Your task to perform on an android device: Search for vegetarian restaurants on Maps Image 0: 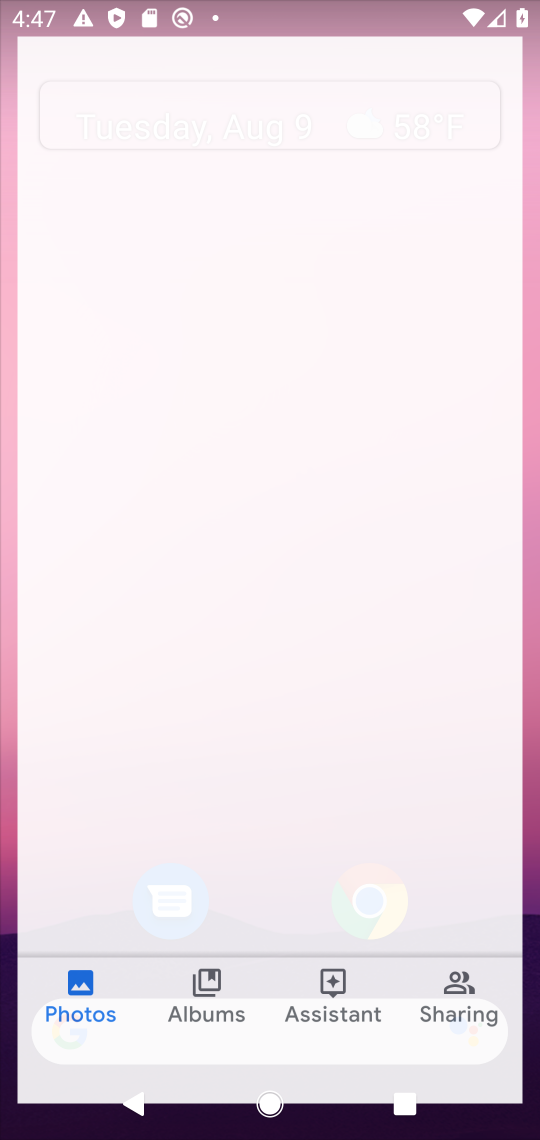
Step 0: press home button
Your task to perform on an android device: Search for vegetarian restaurants on Maps Image 1: 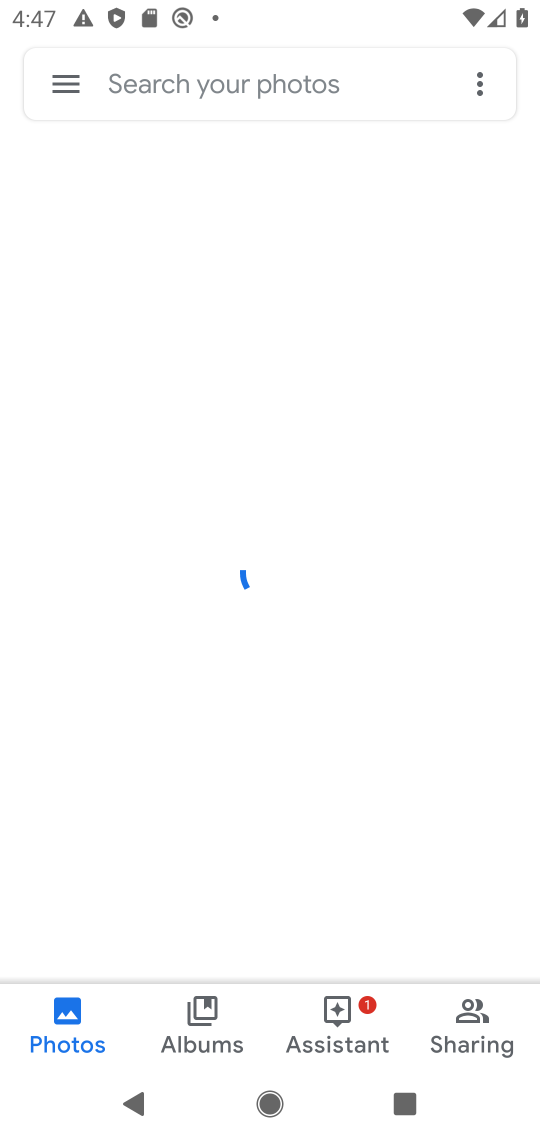
Step 1: press home button
Your task to perform on an android device: Search for vegetarian restaurants on Maps Image 2: 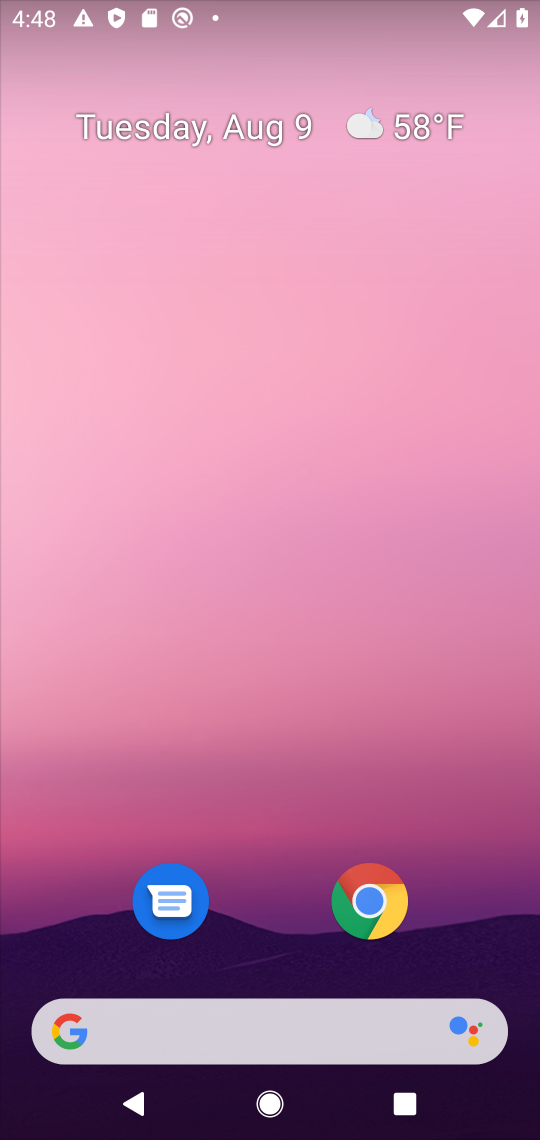
Step 2: drag from (267, 926) to (281, 374)
Your task to perform on an android device: Search for vegetarian restaurants on Maps Image 3: 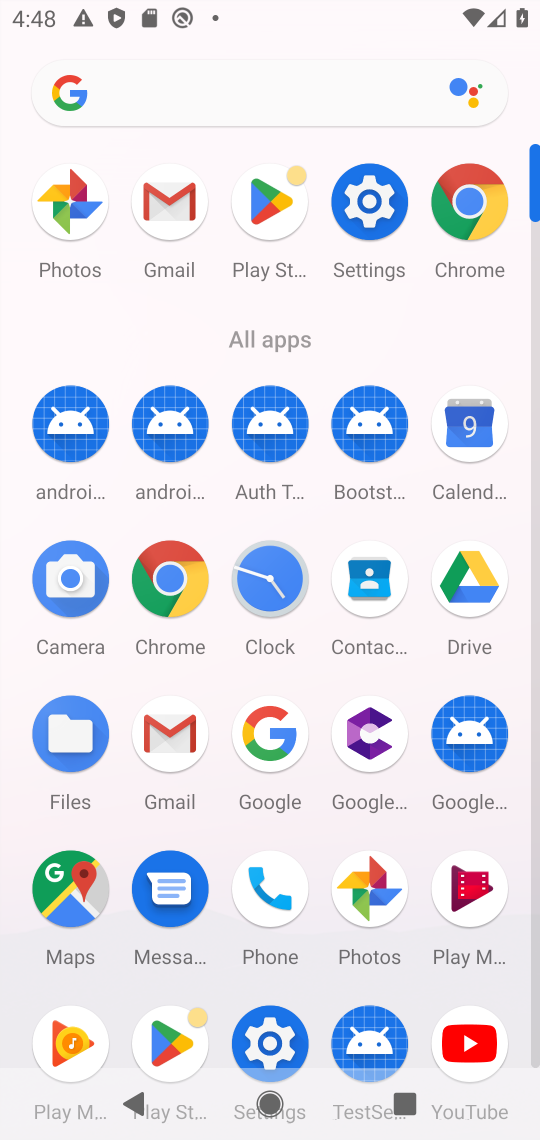
Step 3: click (51, 865)
Your task to perform on an android device: Search for vegetarian restaurants on Maps Image 4: 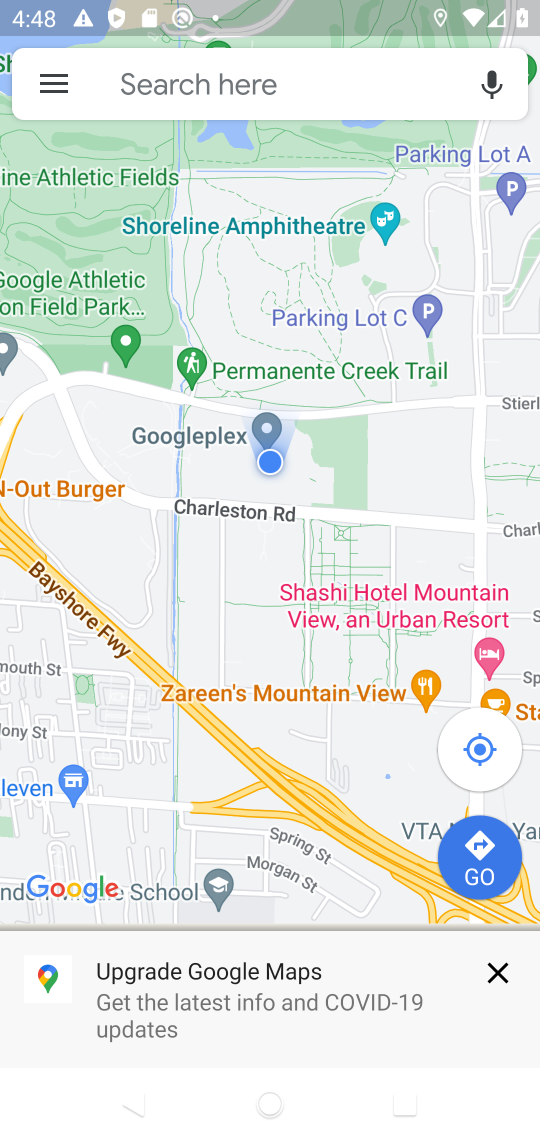
Step 4: click (205, 86)
Your task to perform on an android device: Search for vegetarian restaurants on Maps Image 5: 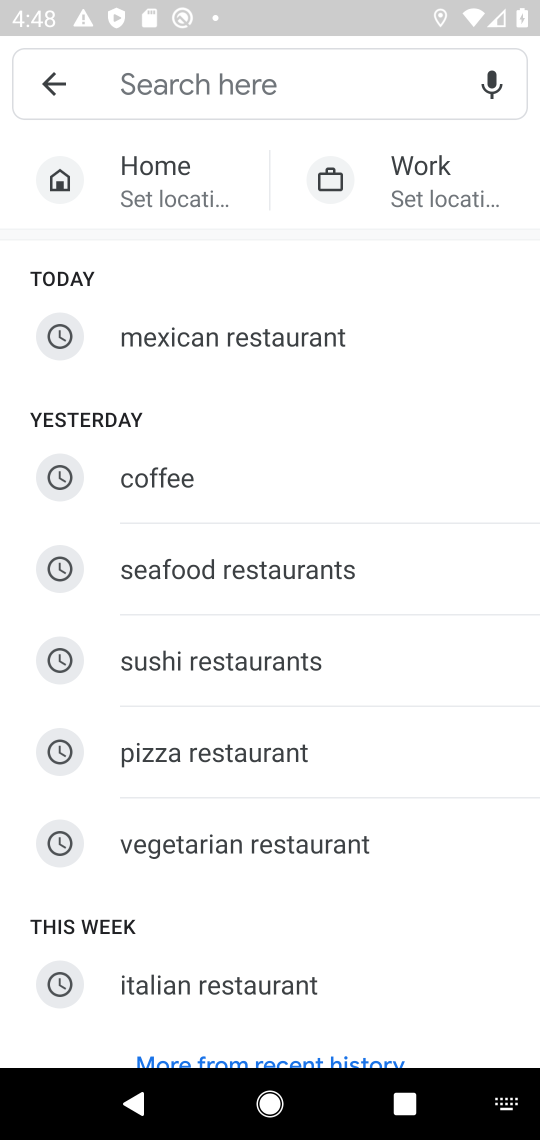
Step 5: type "vegetarian restaurants"
Your task to perform on an android device: Search for vegetarian restaurants on Maps Image 6: 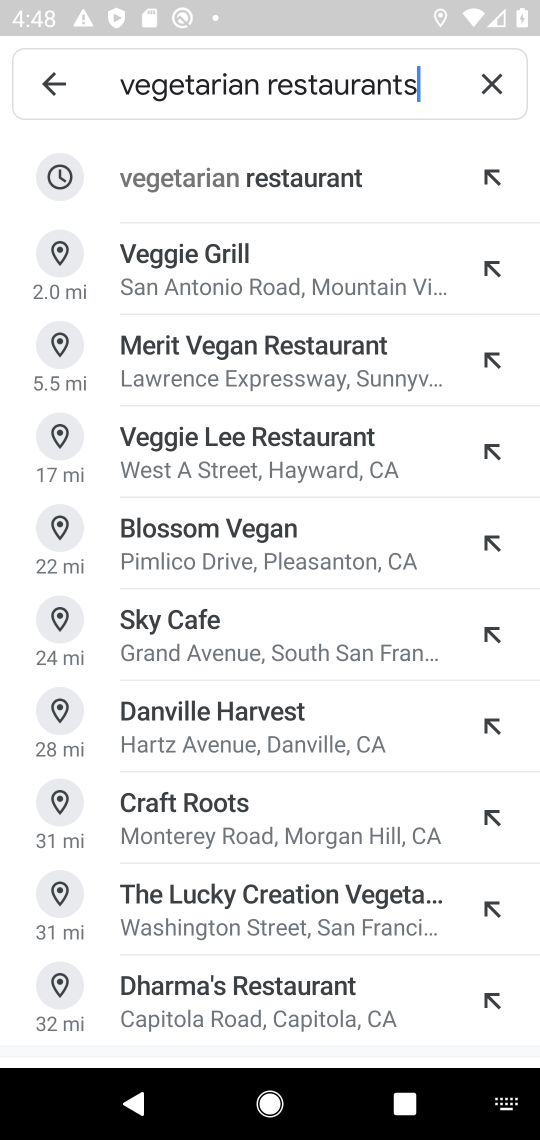
Step 6: click (211, 189)
Your task to perform on an android device: Search for vegetarian restaurants on Maps Image 7: 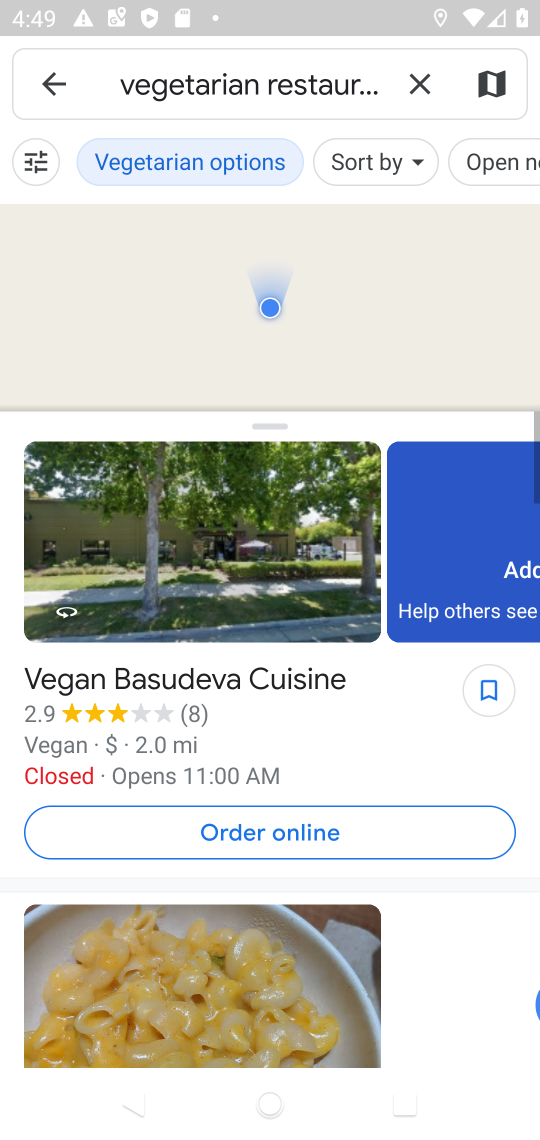
Step 7: task complete